Your task to perform on an android device: Go to location settings Image 0: 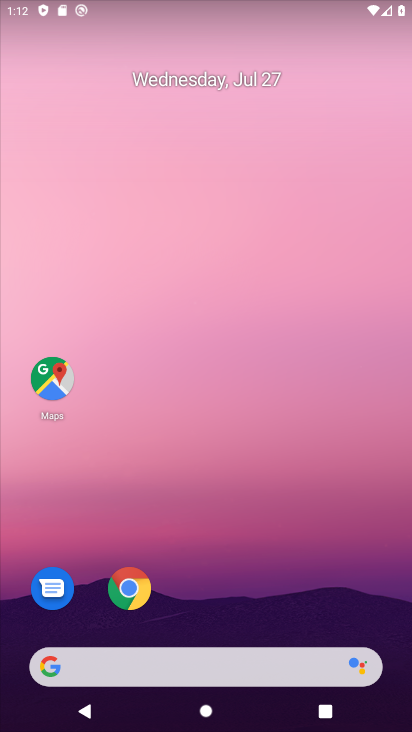
Step 0: drag from (194, 305) to (194, 151)
Your task to perform on an android device: Go to location settings Image 1: 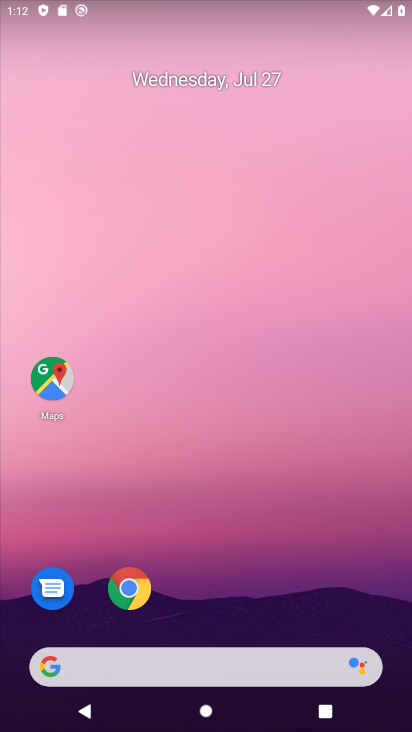
Step 1: drag from (209, 599) to (225, 119)
Your task to perform on an android device: Go to location settings Image 2: 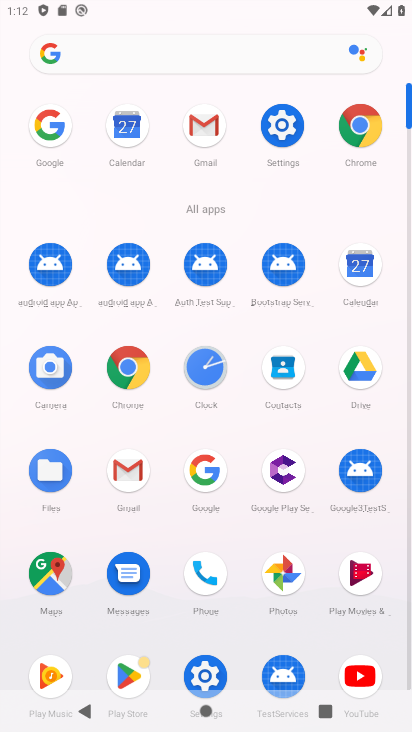
Step 2: click (273, 151)
Your task to perform on an android device: Go to location settings Image 3: 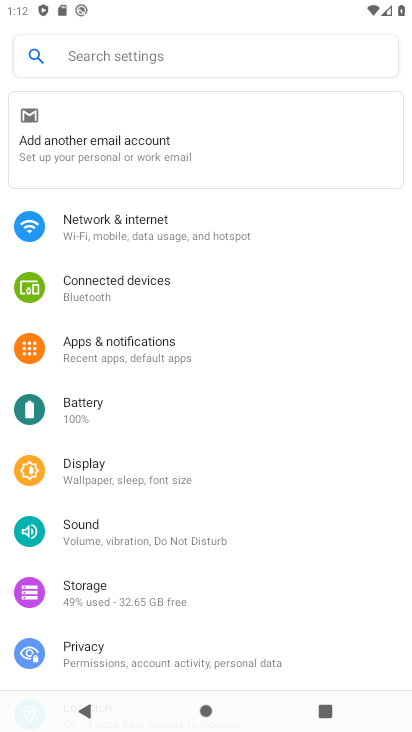
Step 3: drag from (125, 614) to (156, 392)
Your task to perform on an android device: Go to location settings Image 4: 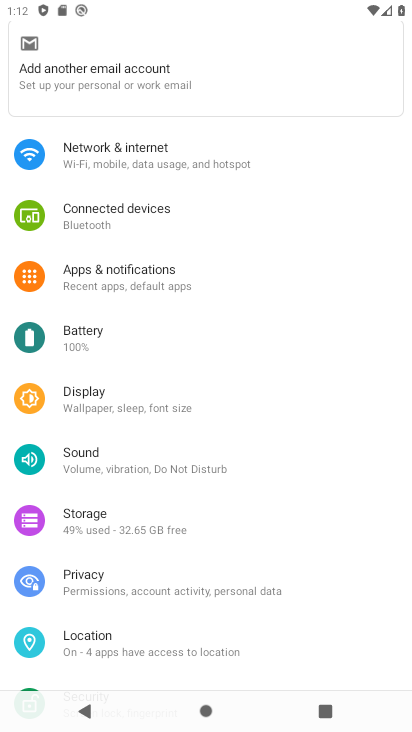
Step 4: click (121, 641)
Your task to perform on an android device: Go to location settings Image 5: 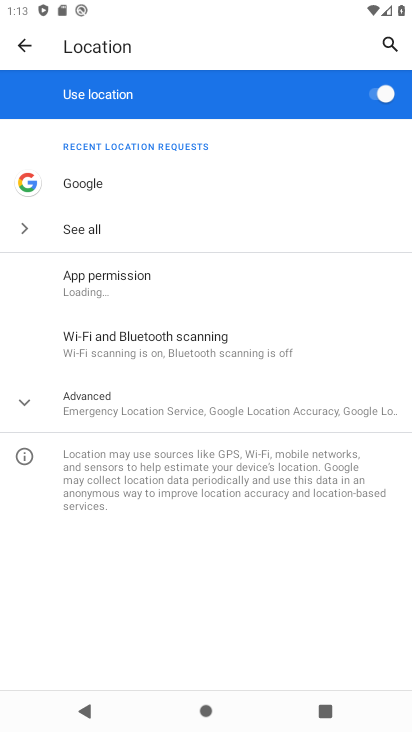
Step 5: task complete